Your task to perform on an android device: move a message to another label in the gmail app Image 0: 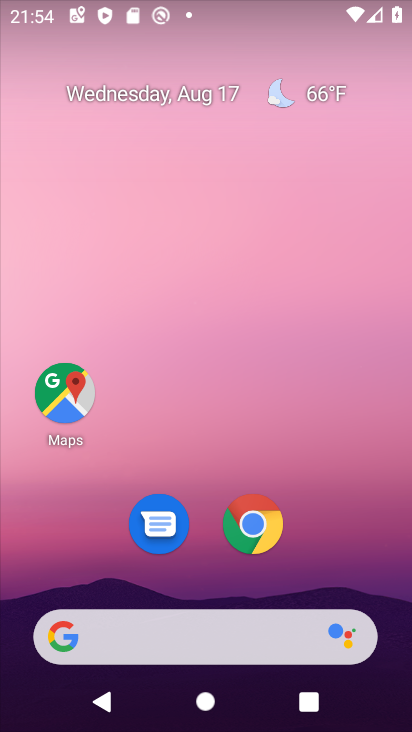
Step 0: drag from (344, 502) to (323, 0)
Your task to perform on an android device: move a message to another label in the gmail app Image 1: 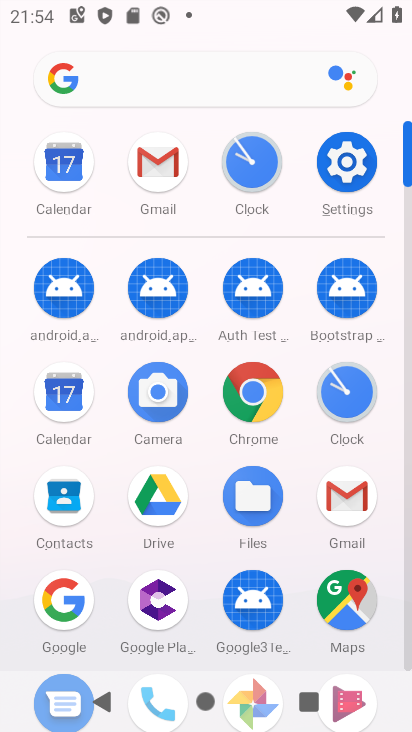
Step 1: click (162, 166)
Your task to perform on an android device: move a message to another label in the gmail app Image 2: 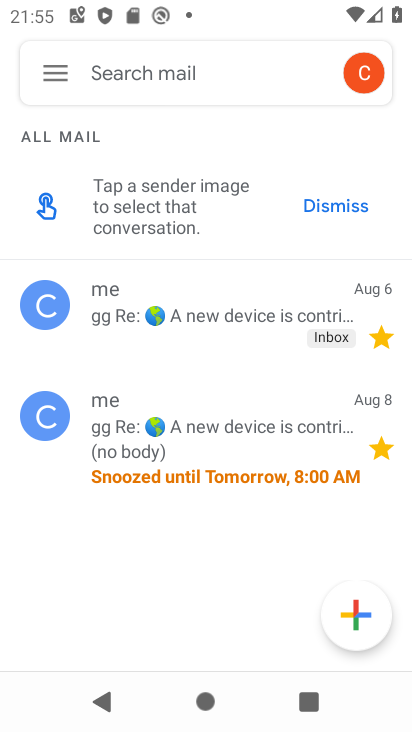
Step 2: click (259, 303)
Your task to perform on an android device: move a message to another label in the gmail app Image 3: 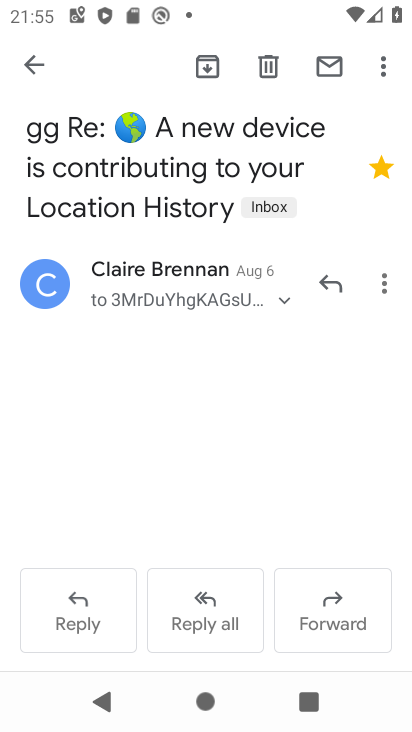
Step 3: click (379, 67)
Your task to perform on an android device: move a message to another label in the gmail app Image 4: 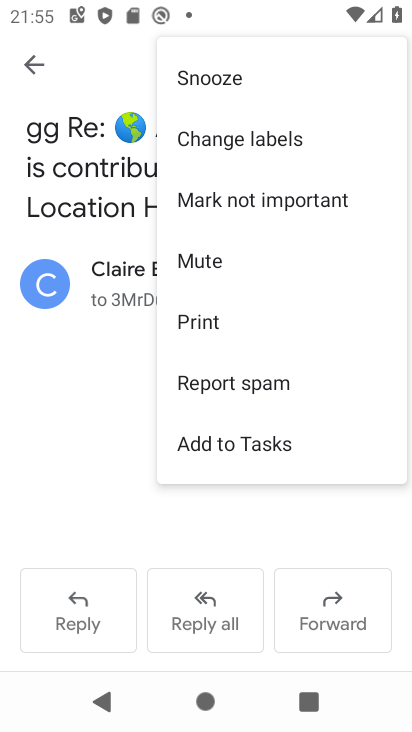
Step 4: click (300, 137)
Your task to perform on an android device: move a message to another label in the gmail app Image 5: 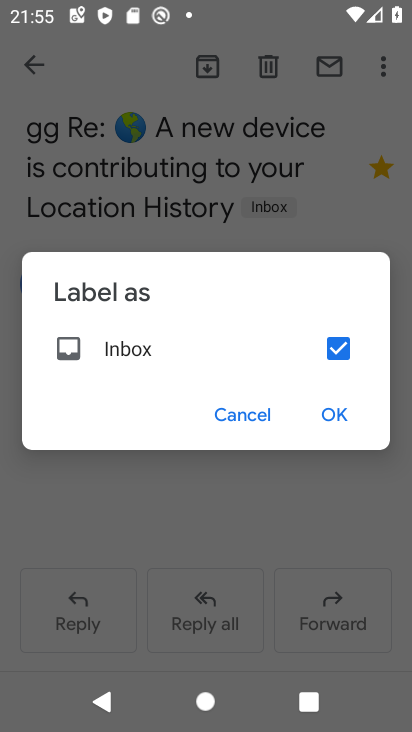
Step 5: click (342, 348)
Your task to perform on an android device: move a message to another label in the gmail app Image 6: 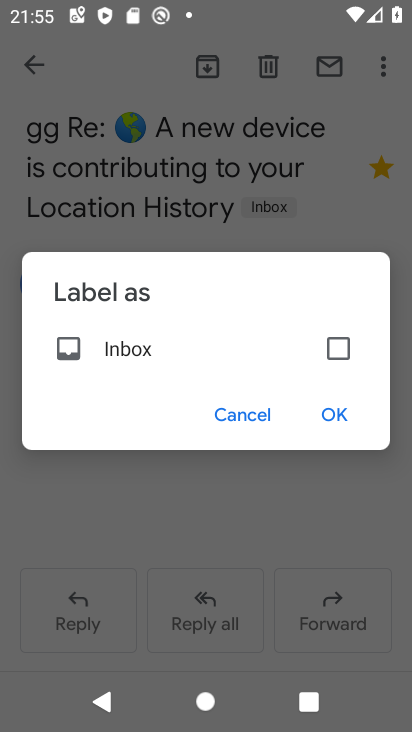
Step 6: click (338, 412)
Your task to perform on an android device: move a message to another label in the gmail app Image 7: 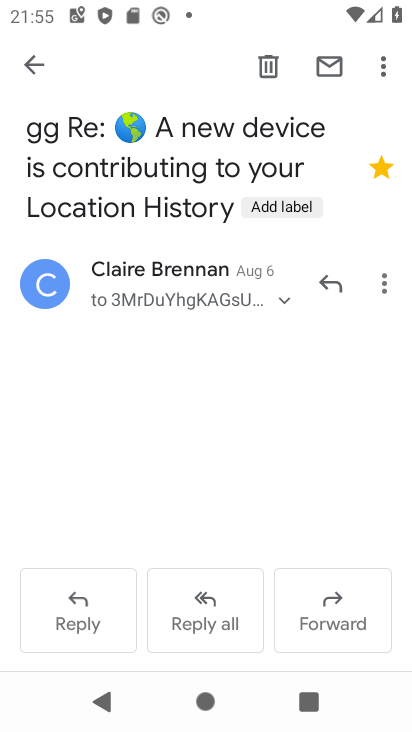
Step 7: task complete